Your task to perform on an android device: Open notification settings Image 0: 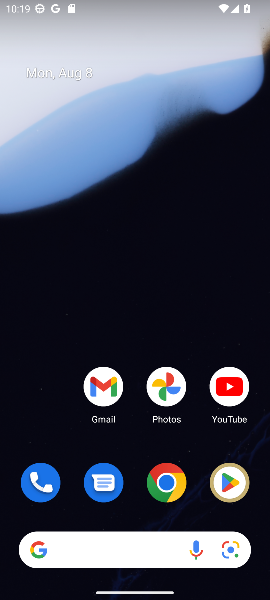
Step 0: drag from (134, 449) to (169, 2)
Your task to perform on an android device: Open notification settings Image 1: 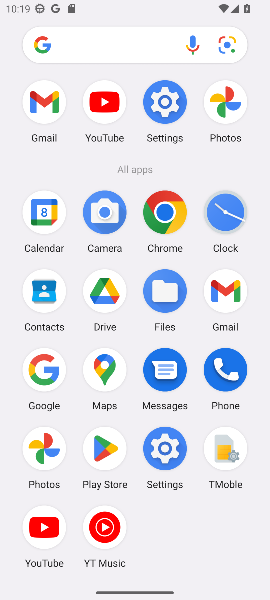
Step 1: click (164, 444)
Your task to perform on an android device: Open notification settings Image 2: 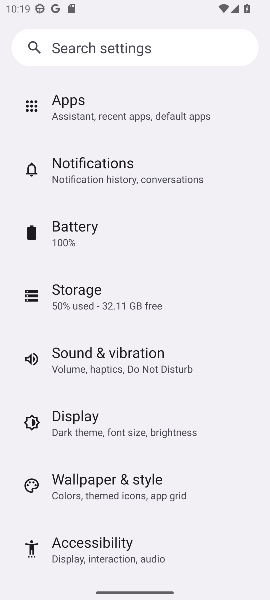
Step 2: click (128, 160)
Your task to perform on an android device: Open notification settings Image 3: 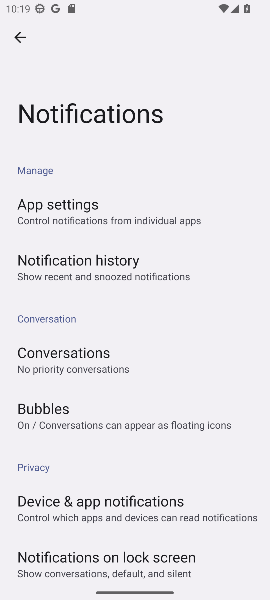
Step 3: task complete